Your task to perform on an android device: Go to sound settings Image 0: 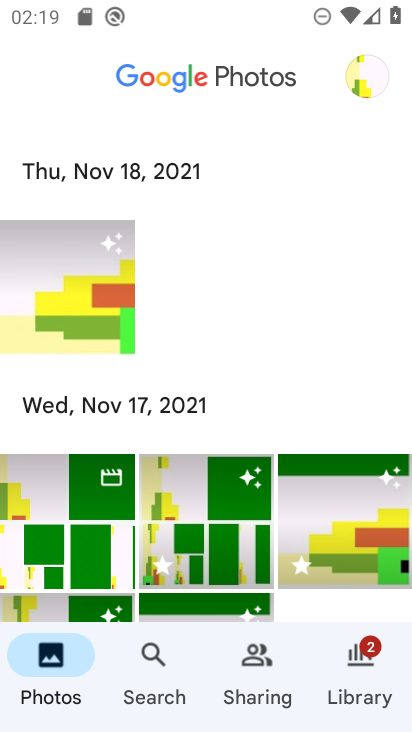
Step 0: press home button
Your task to perform on an android device: Go to sound settings Image 1: 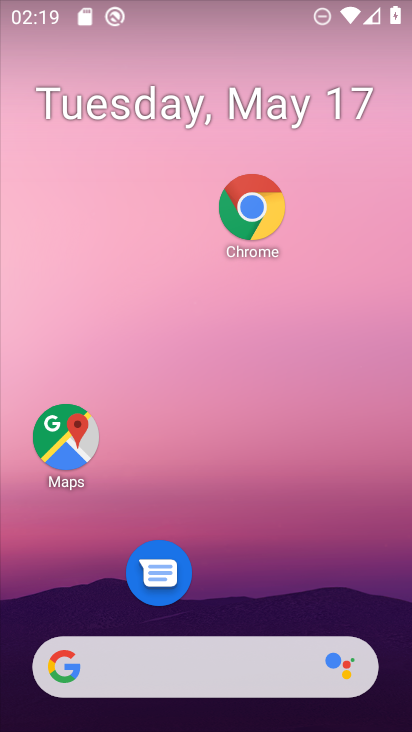
Step 1: drag from (237, 621) to (248, 5)
Your task to perform on an android device: Go to sound settings Image 2: 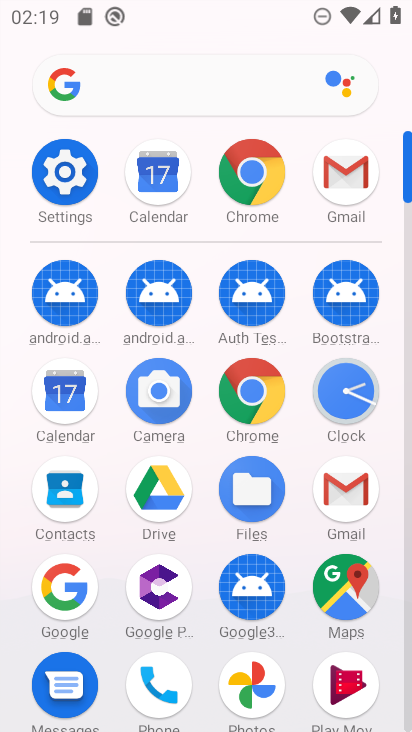
Step 2: click (56, 172)
Your task to perform on an android device: Go to sound settings Image 3: 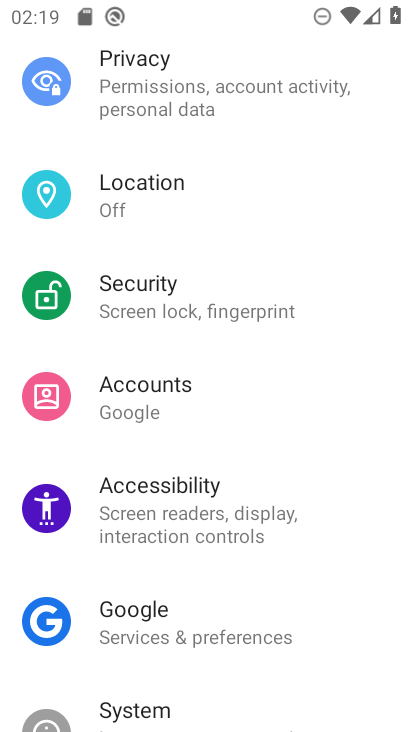
Step 3: drag from (249, 200) to (247, 688)
Your task to perform on an android device: Go to sound settings Image 4: 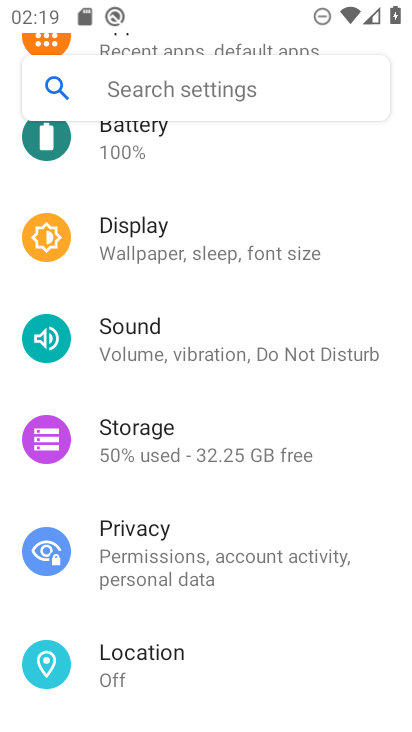
Step 4: click (202, 348)
Your task to perform on an android device: Go to sound settings Image 5: 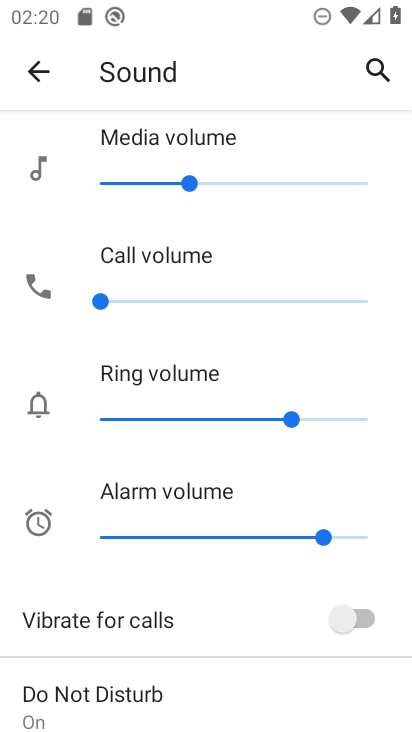
Step 5: task complete